Your task to perform on an android device: open sync settings in chrome Image 0: 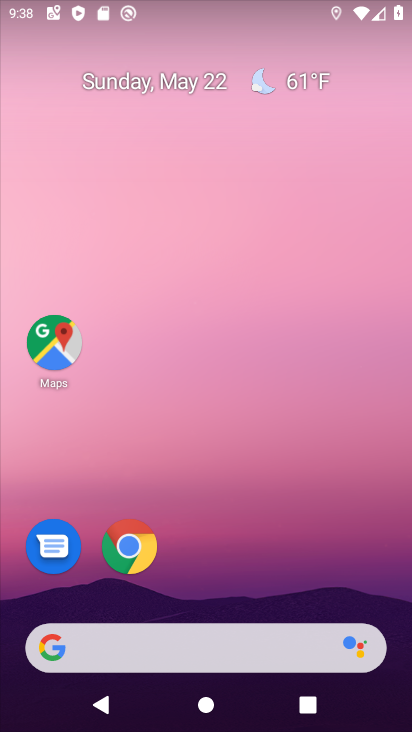
Step 0: click (128, 548)
Your task to perform on an android device: open sync settings in chrome Image 1: 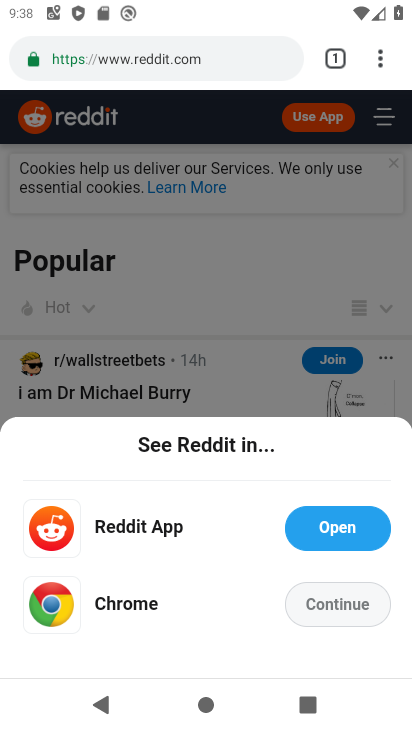
Step 1: click (380, 57)
Your task to perform on an android device: open sync settings in chrome Image 2: 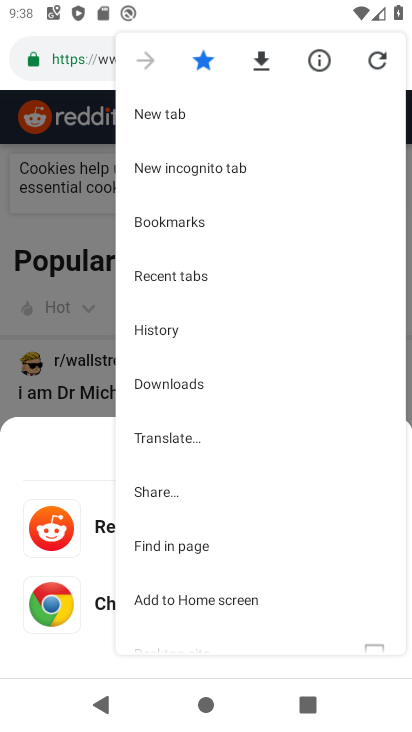
Step 2: drag from (194, 574) to (206, 493)
Your task to perform on an android device: open sync settings in chrome Image 3: 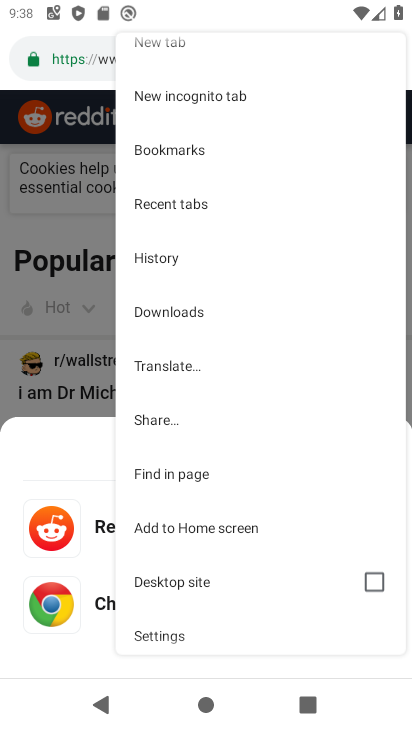
Step 3: drag from (198, 606) to (258, 514)
Your task to perform on an android device: open sync settings in chrome Image 4: 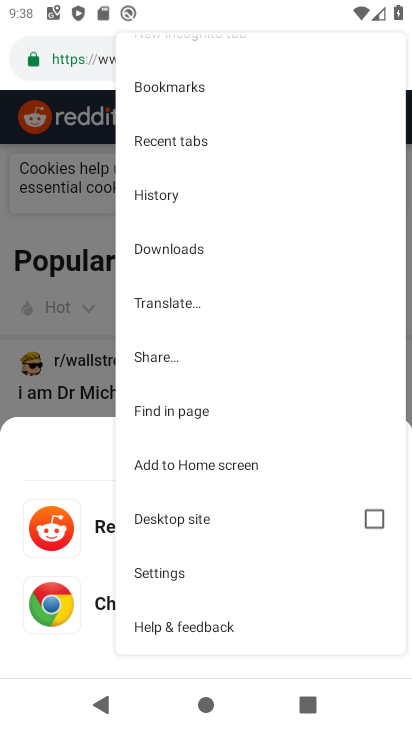
Step 4: click (165, 580)
Your task to perform on an android device: open sync settings in chrome Image 5: 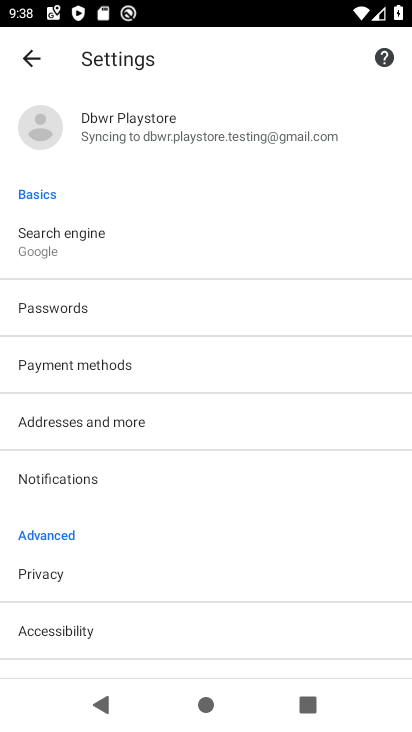
Step 5: drag from (130, 563) to (184, 449)
Your task to perform on an android device: open sync settings in chrome Image 6: 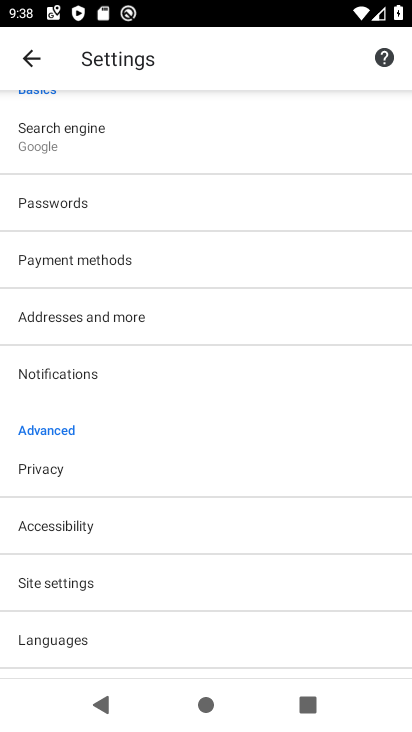
Step 6: click (57, 586)
Your task to perform on an android device: open sync settings in chrome Image 7: 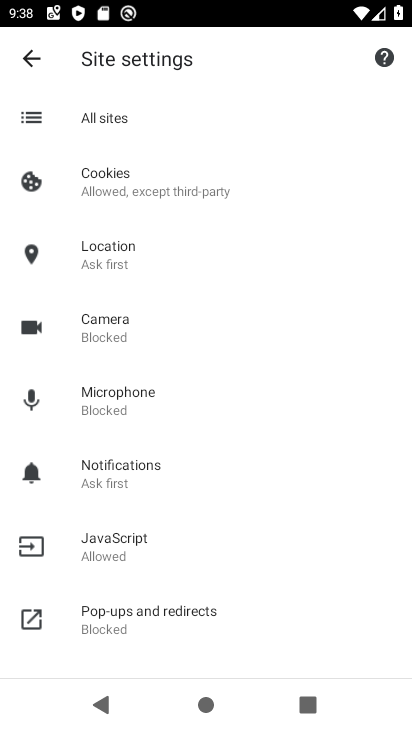
Step 7: drag from (118, 485) to (181, 371)
Your task to perform on an android device: open sync settings in chrome Image 8: 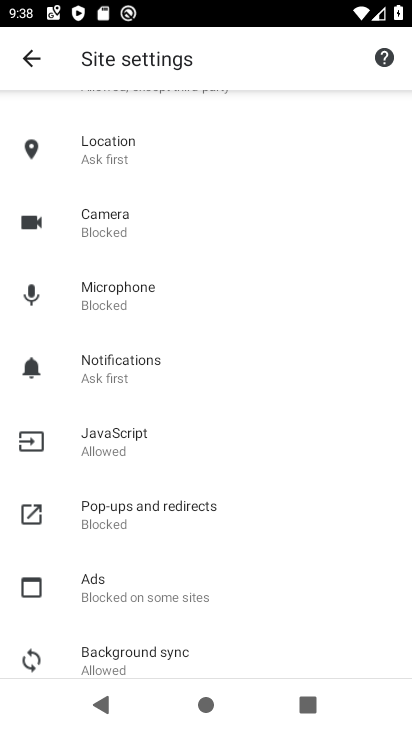
Step 8: drag from (107, 509) to (191, 410)
Your task to perform on an android device: open sync settings in chrome Image 9: 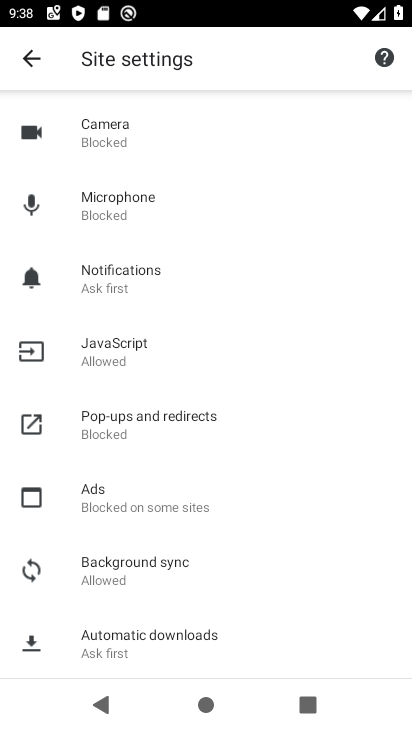
Step 9: click (125, 569)
Your task to perform on an android device: open sync settings in chrome Image 10: 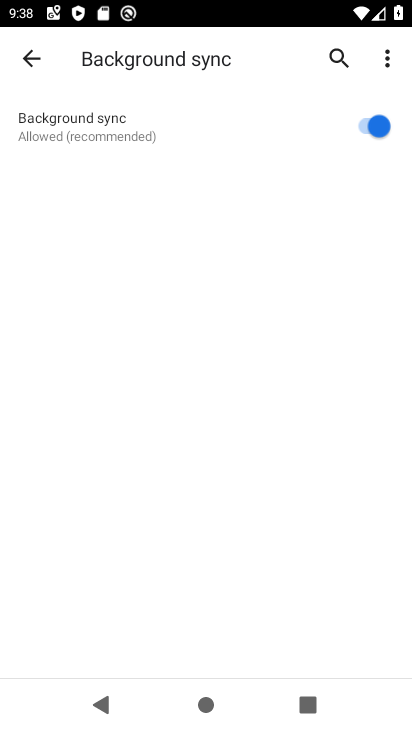
Step 10: task complete